Your task to perform on an android device: toggle sleep mode Image 0: 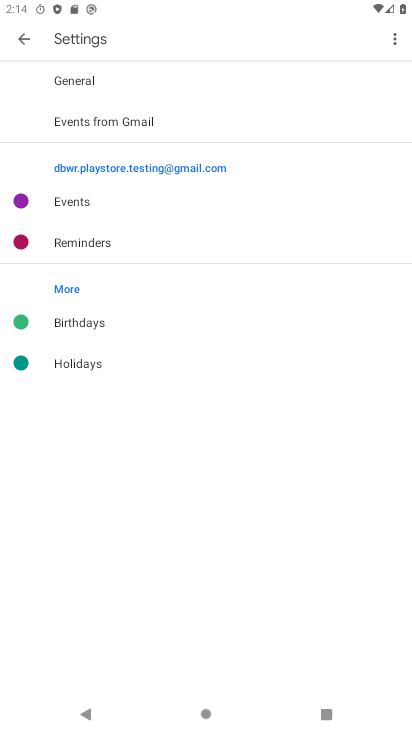
Step 0: click (23, 45)
Your task to perform on an android device: toggle sleep mode Image 1: 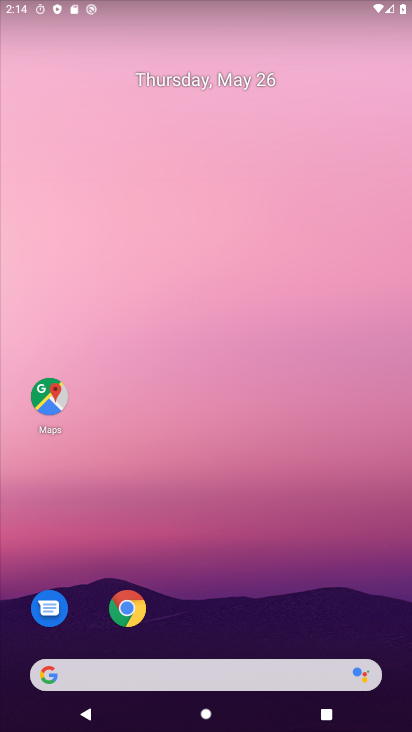
Step 1: drag from (265, 556) to (206, 14)
Your task to perform on an android device: toggle sleep mode Image 2: 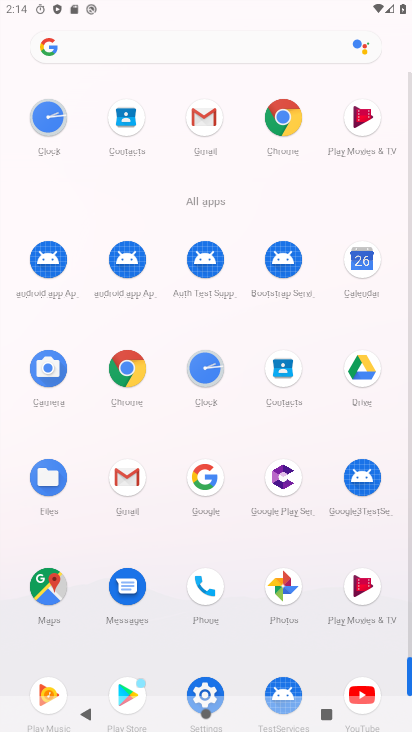
Step 2: drag from (232, 452) to (224, 168)
Your task to perform on an android device: toggle sleep mode Image 3: 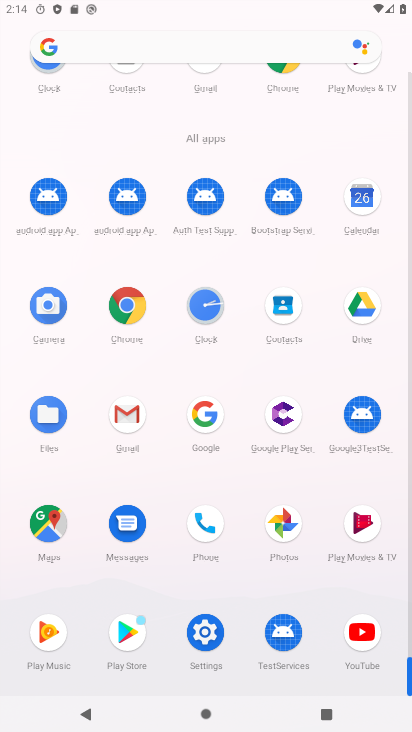
Step 3: drag from (224, 539) to (229, 179)
Your task to perform on an android device: toggle sleep mode Image 4: 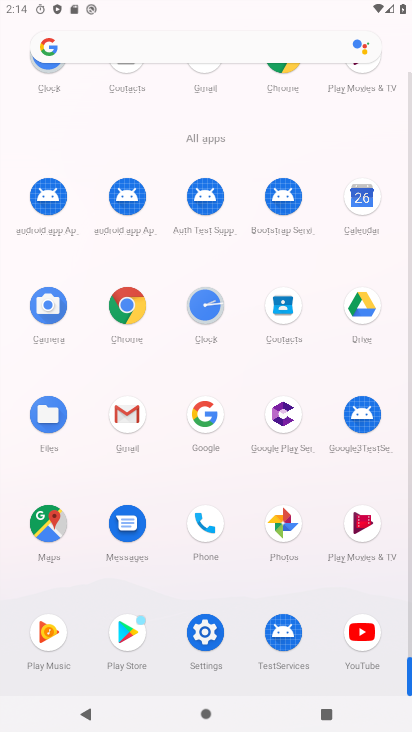
Step 4: click (205, 630)
Your task to perform on an android device: toggle sleep mode Image 5: 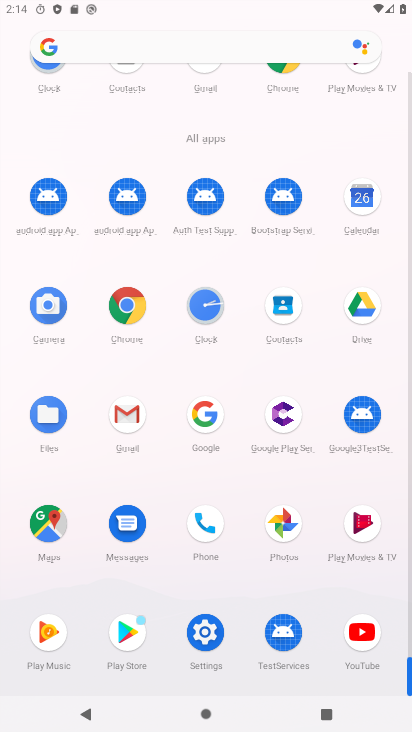
Step 5: click (205, 630)
Your task to perform on an android device: toggle sleep mode Image 6: 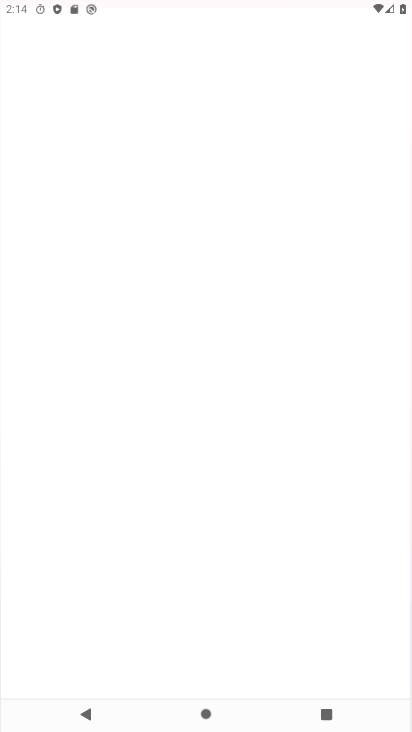
Step 6: click (207, 633)
Your task to perform on an android device: toggle sleep mode Image 7: 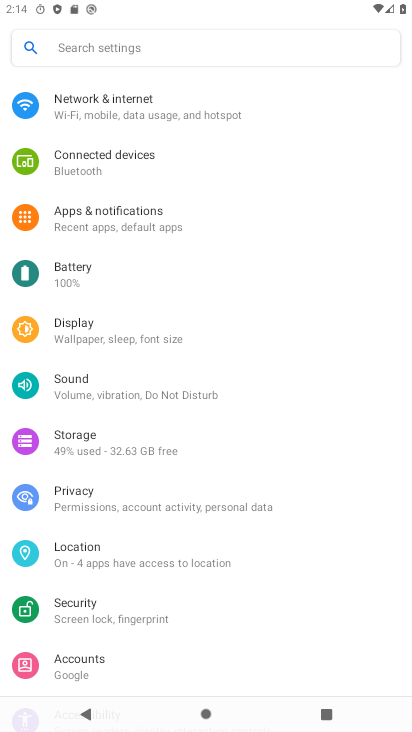
Step 7: click (207, 633)
Your task to perform on an android device: toggle sleep mode Image 8: 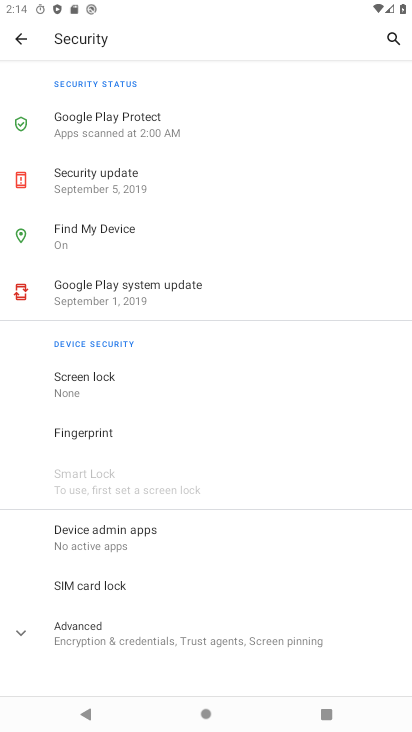
Step 8: click (19, 38)
Your task to perform on an android device: toggle sleep mode Image 9: 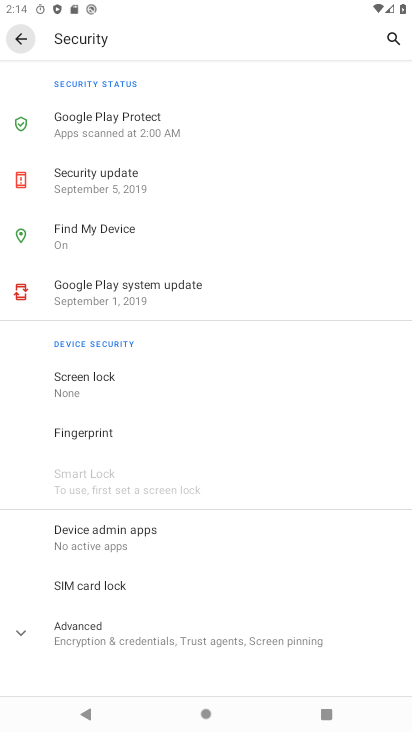
Step 9: click (25, 30)
Your task to perform on an android device: toggle sleep mode Image 10: 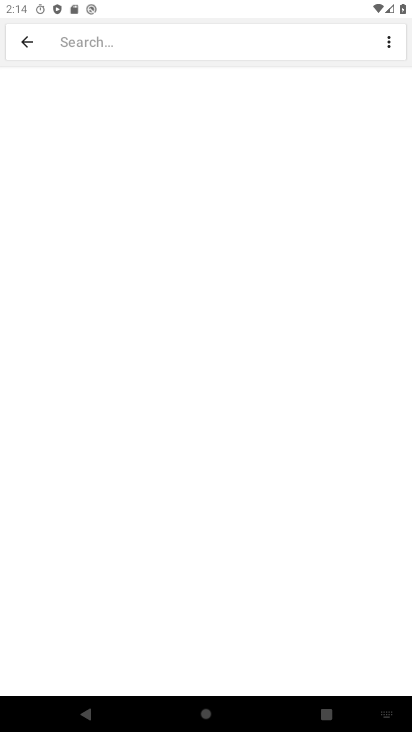
Step 10: click (27, 37)
Your task to perform on an android device: toggle sleep mode Image 11: 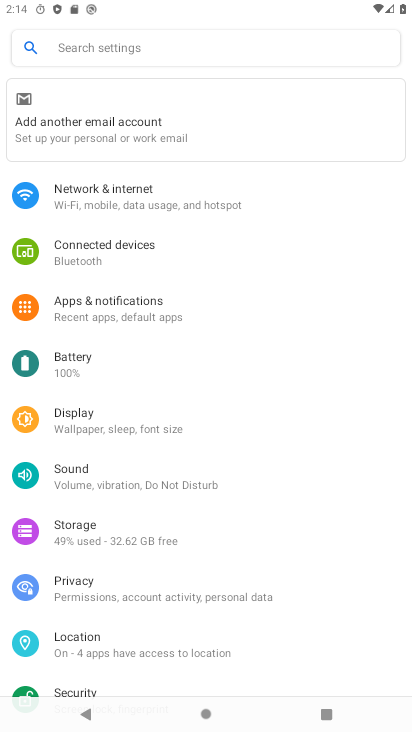
Step 11: click (75, 427)
Your task to perform on an android device: toggle sleep mode Image 12: 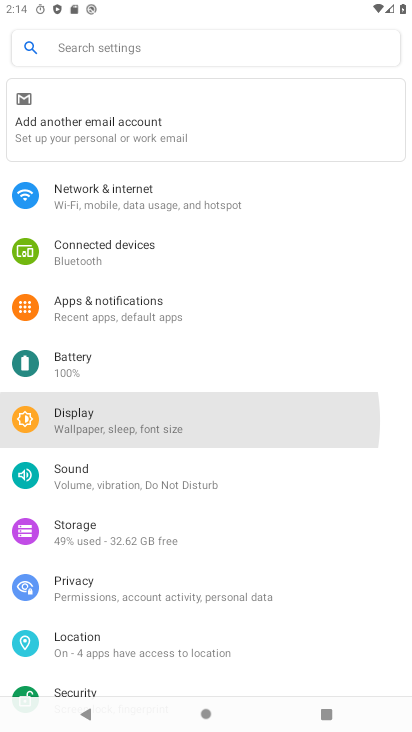
Step 12: click (74, 426)
Your task to perform on an android device: toggle sleep mode Image 13: 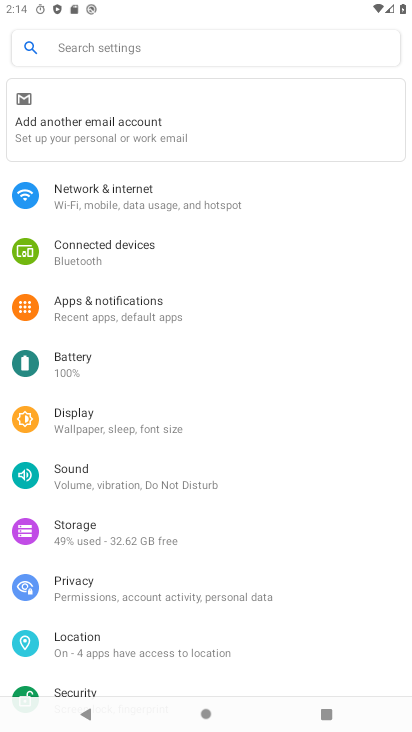
Step 13: click (74, 426)
Your task to perform on an android device: toggle sleep mode Image 14: 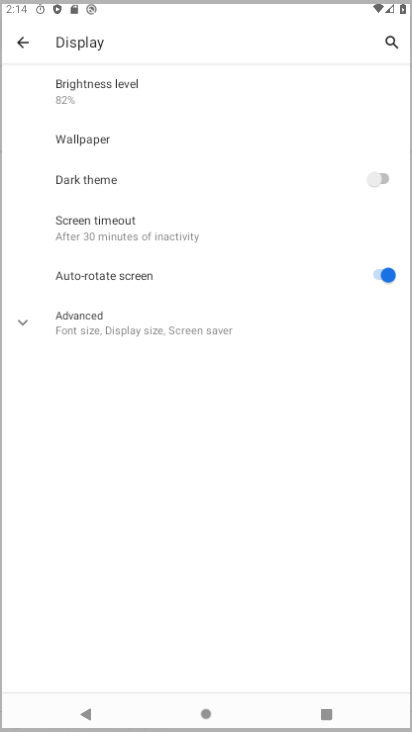
Step 14: click (76, 424)
Your task to perform on an android device: toggle sleep mode Image 15: 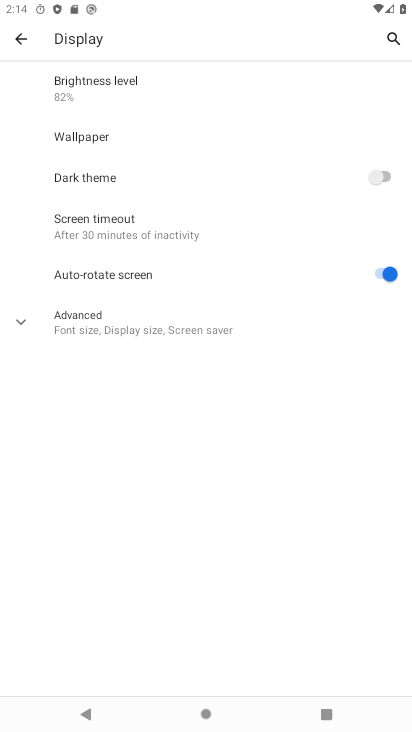
Step 15: click (78, 424)
Your task to perform on an android device: toggle sleep mode Image 16: 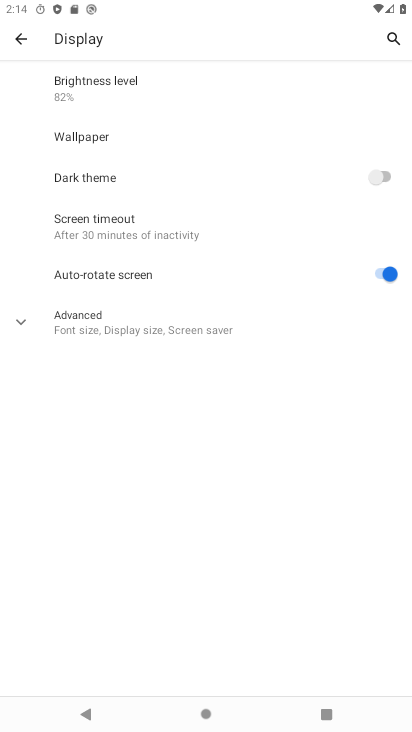
Step 16: click (103, 230)
Your task to perform on an android device: toggle sleep mode Image 17: 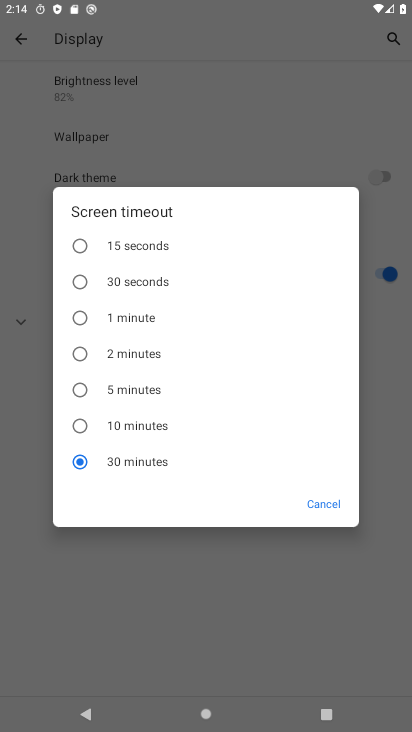
Step 17: click (80, 387)
Your task to perform on an android device: toggle sleep mode Image 18: 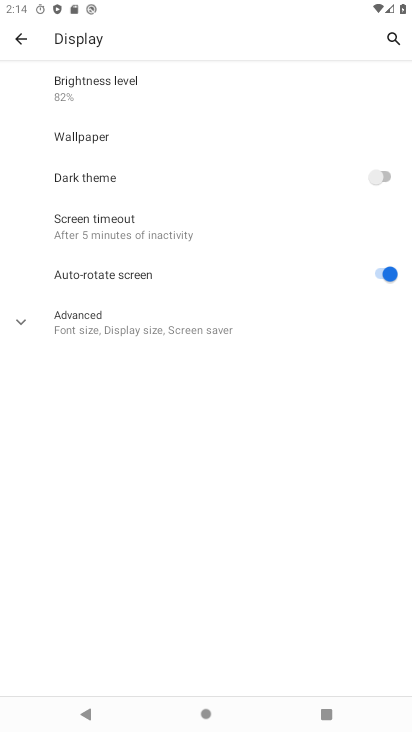
Step 18: task complete